Your task to perform on an android device: open app "Adobe Express: Graphic Design" (install if not already installed), go to login, and select forgot password Image 0: 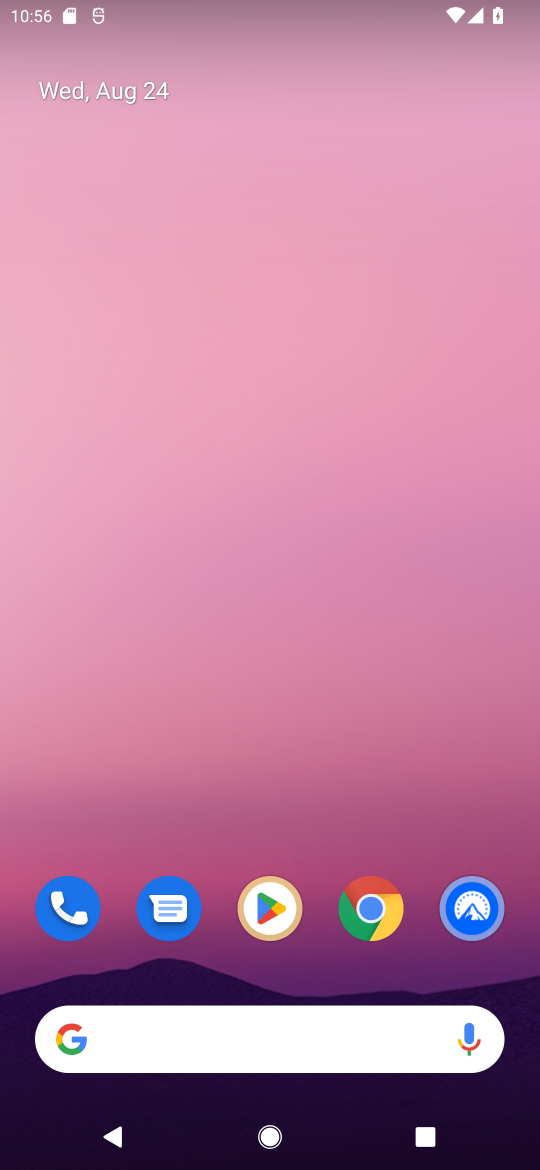
Step 0: click (250, 922)
Your task to perform on an android device: open app "Adobe Express: Graphic Design" (install if not already installed), go to login, and select forgot password Image 1: 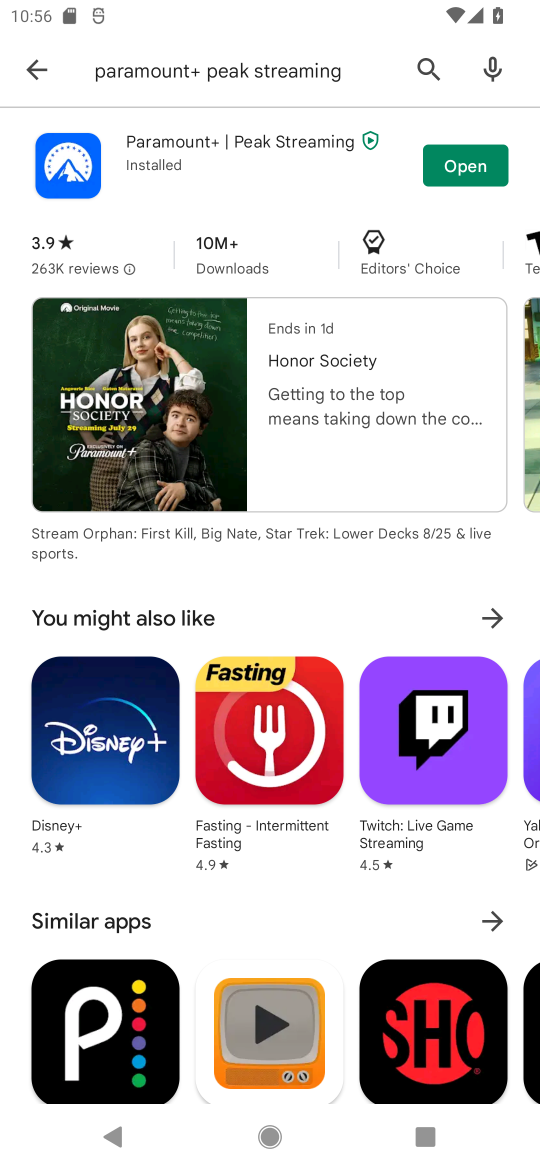
Step 1: click (43, 61)
Your task to perform on an android device: open app "Adobe Express: Graphic Design" (install if not already installed), go to login, and select forgot password Image 2: 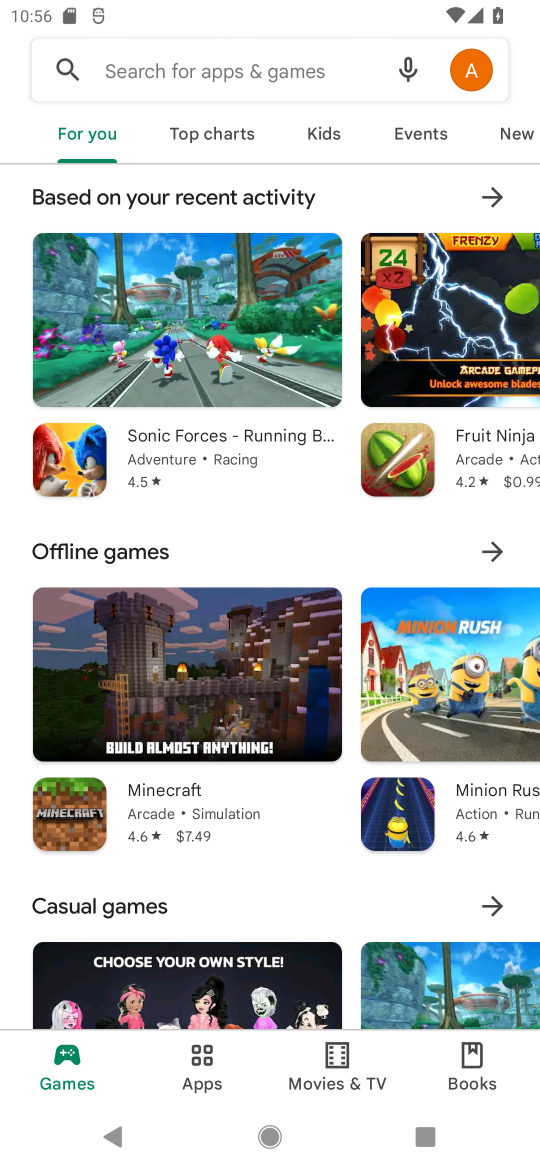
Step 2: click (123, 66)
Your task to perform on an android device: open app "Adobe Express: Graphic Design" (install if not already installed), go to login, and select forgot password Image 3: 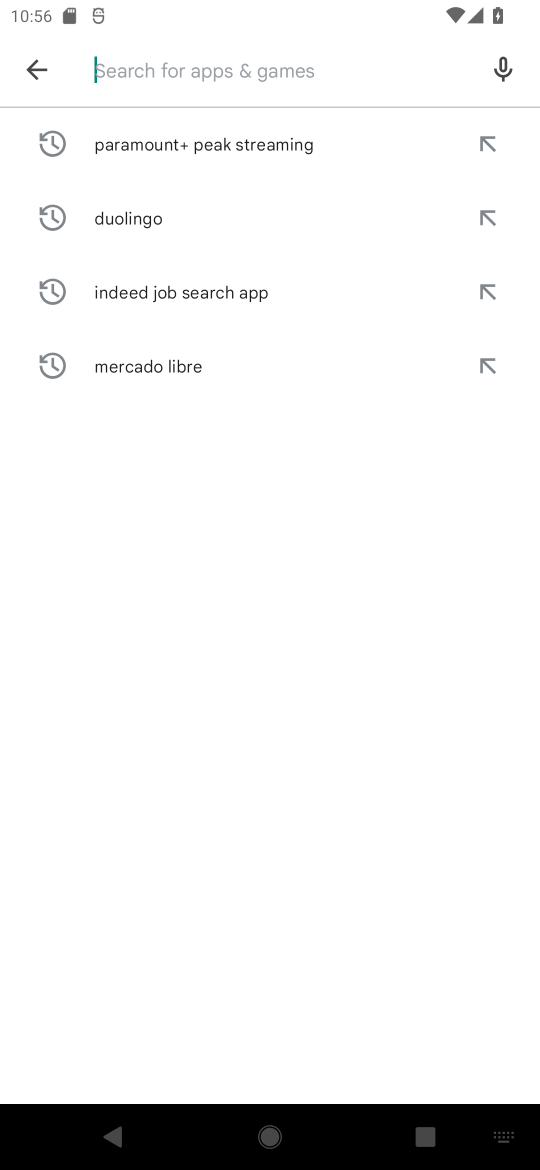
Step 3: click (96, 1165)
Your task to perform on an android device: open app "Adobe Express: Graphic Design" (install if not already installed), go to login, and select forgot password Image 4: 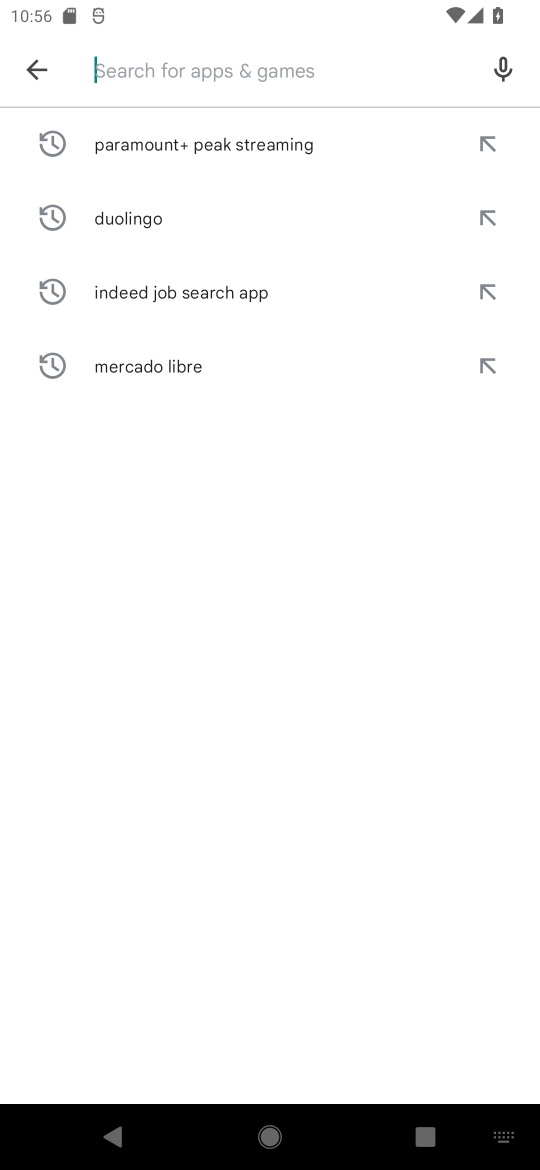
Step 4: type "Adobe Express: Graphic Design"
Your task to perform on an android device: open app "Adobe Express: Graphic Design" (install if not already installed), go to login, and select forgot password Image 5: 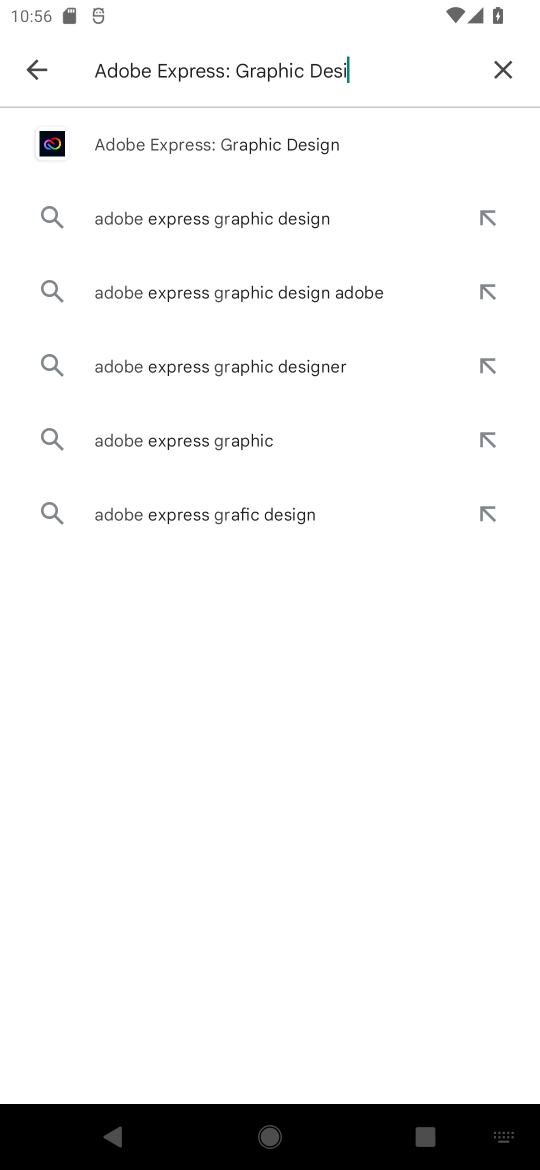
Step 5: drag from (96, 1165) to (456, 558)
Your task to perform on an android device: open app "Adobe Express: Graphic Design" (install if not already installed), go to login, and select forgot password Image 6: 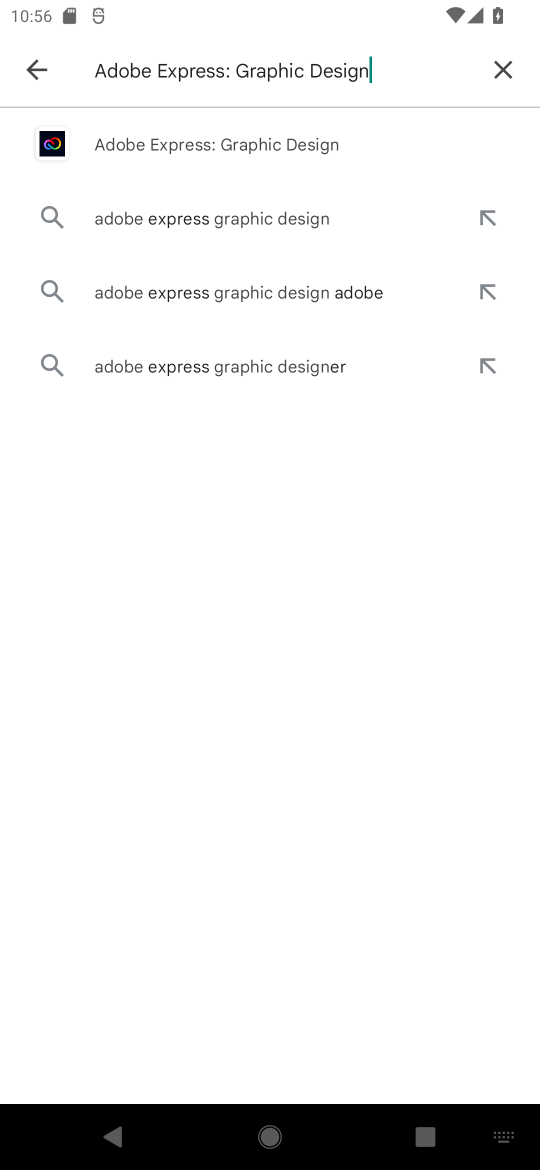
Step 6: click (210, 157)
Your task to perform on an android device: open app "Adobe Express: Graphic Design" (install if not already installed), go to login, and select forgot password Image 7: 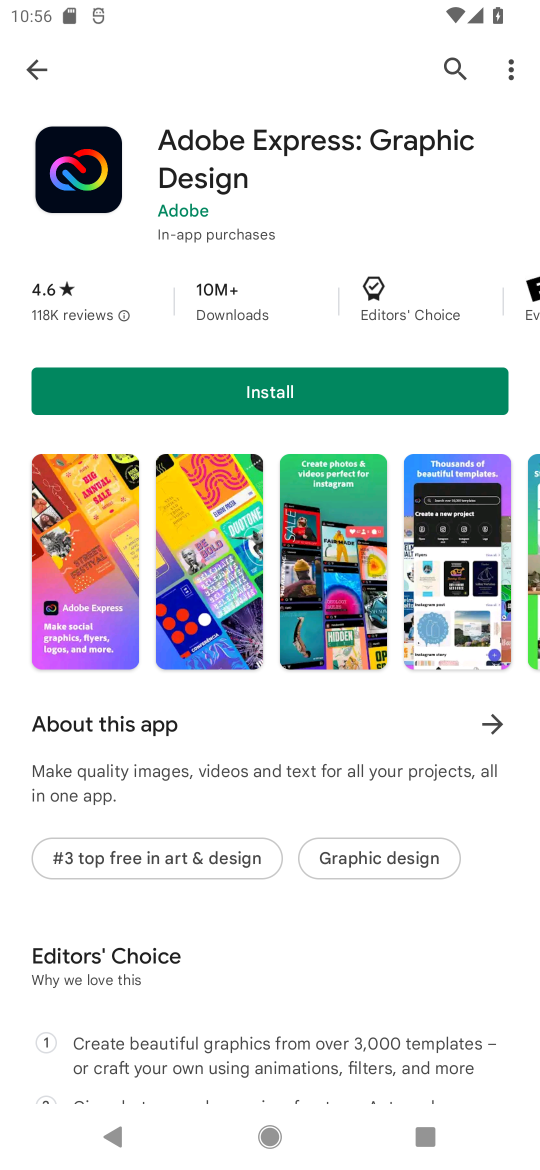
Step 7: click (204, 405)
Your task to perform on an android device: open app "Adobe Express: Graphic Design" (install if not already installed), go to login, and select forgot password Image 8: 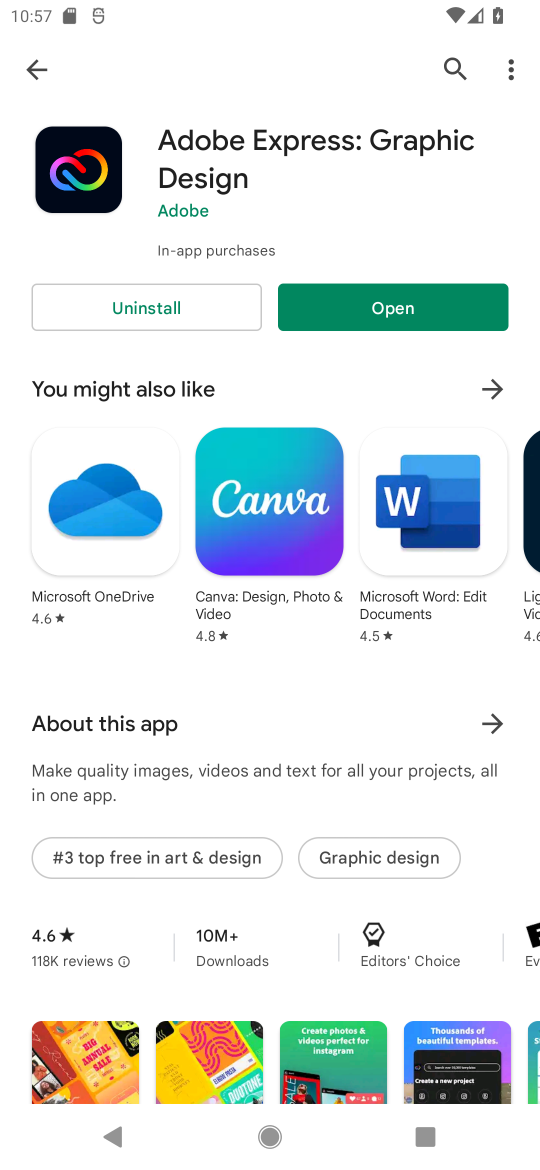
Step 8: click (465, 324)
Your task to perform on an android device: open app "Adobe Express: Graphic Design" (install if not already installed), go to login, and select forgot password Image 9: 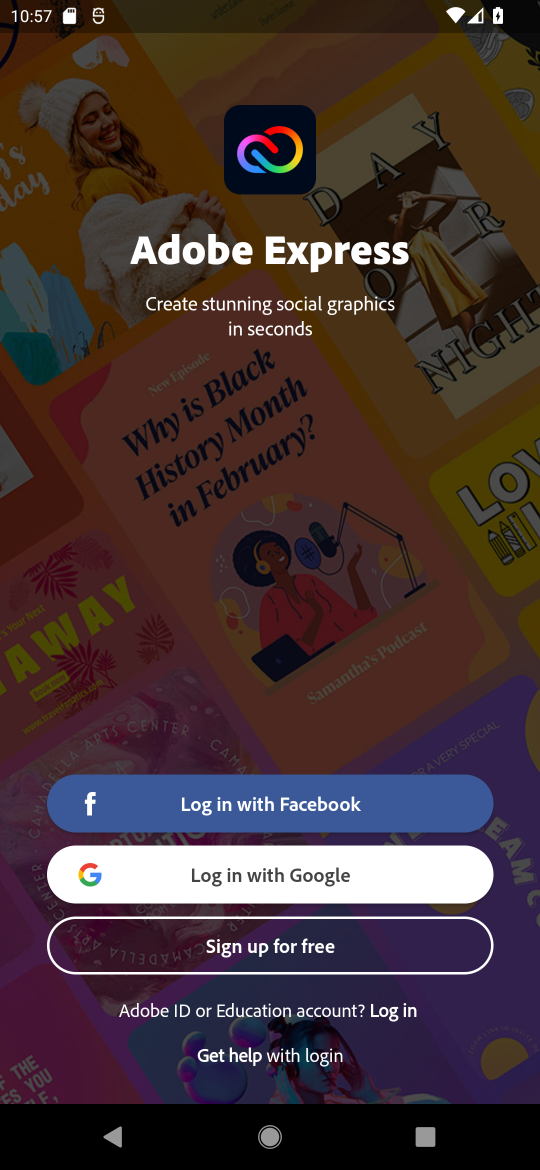
Step 9: click (405, 1015)
Your task to perform on an android device: open app "Adobe Express: Graphic Design" (install if not already installed), go to login, and select forgot password Image 10: 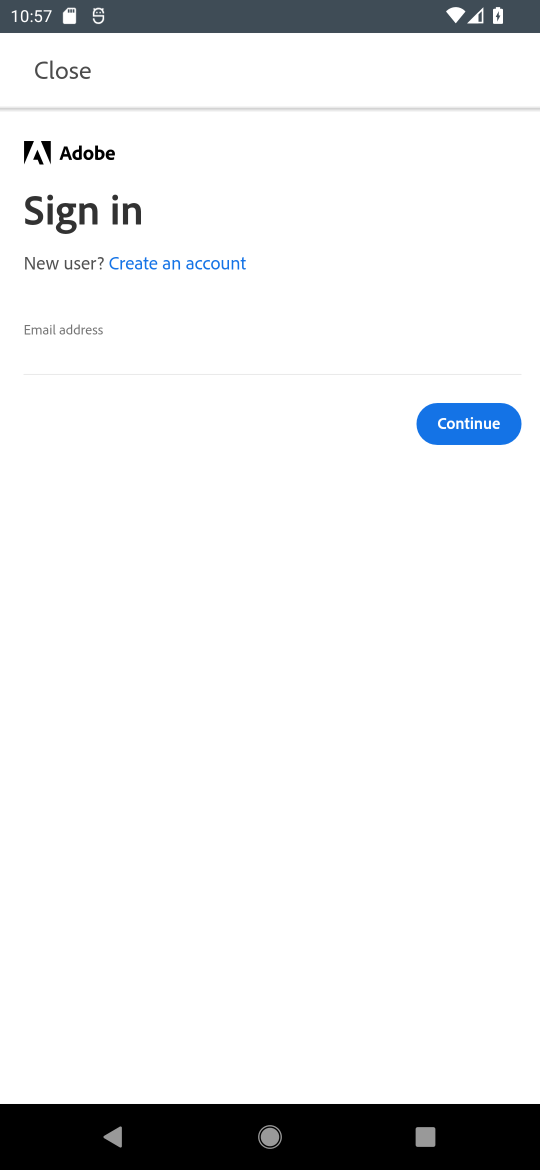
Step 10: task complete